Your task to perform on an android device: change keyboard looks Image 0: 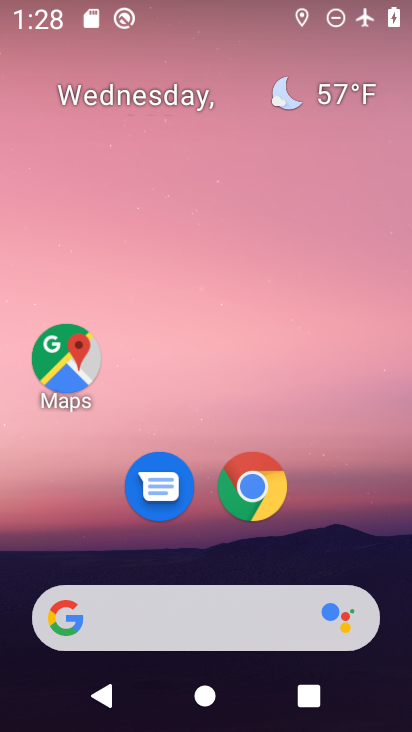
Step 0: drag from (333, 559) to (358, 132)
Your task to perform on an android device: change keyboard looks Image 1: 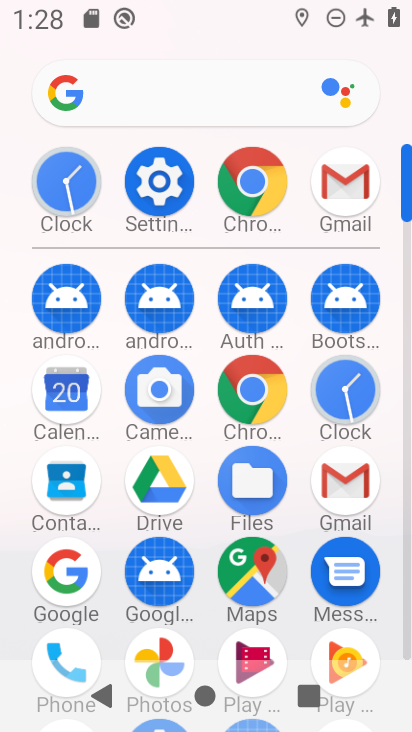
Step 1: click (160, 193)
Your task to perform on an android device: change keyboard looks Image 2: 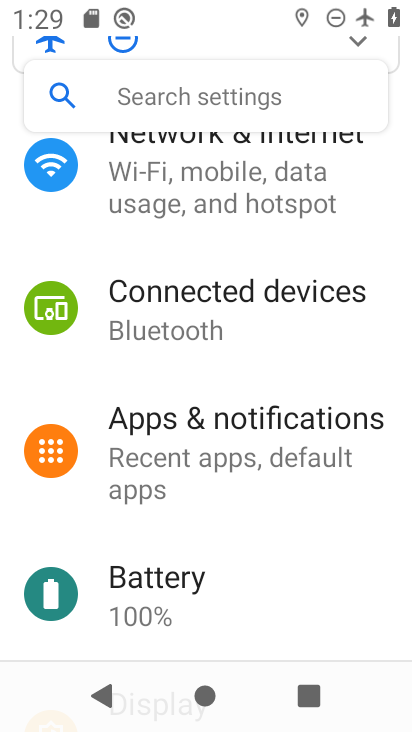
Step 2: drag from (356, 209) to (359, 360)
Your task to perform on an android device: change keyboard looks Image 3: 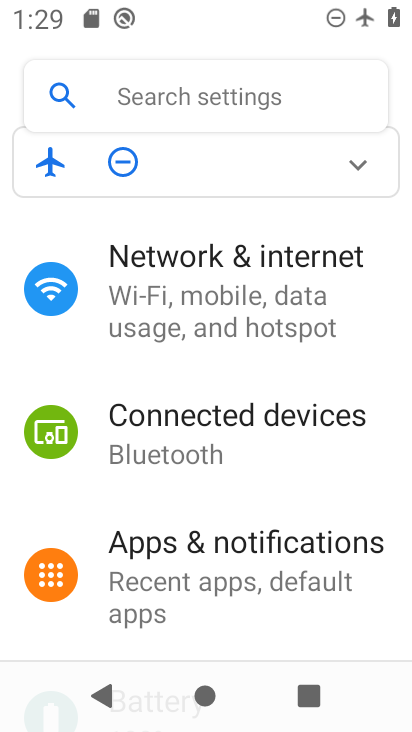
Step 3: drag from (337, 488) to (350, 354)
Your task to perform on an android device: change keyboard looks Image 4: 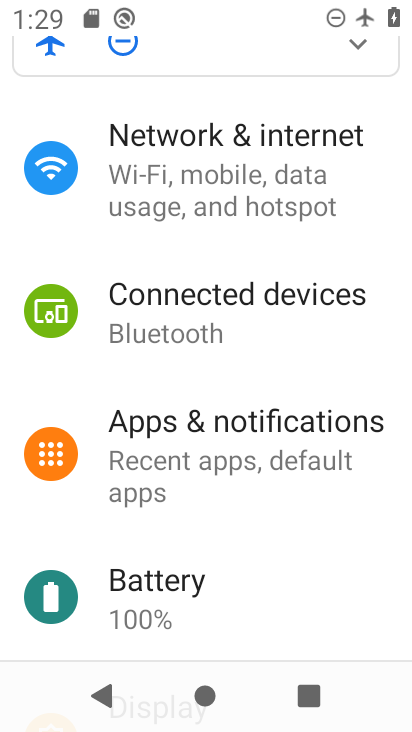
Step 4: drag from (329, 544) to (336, 399)
Your task to perform on an android device: change keyboard looks Image 5: 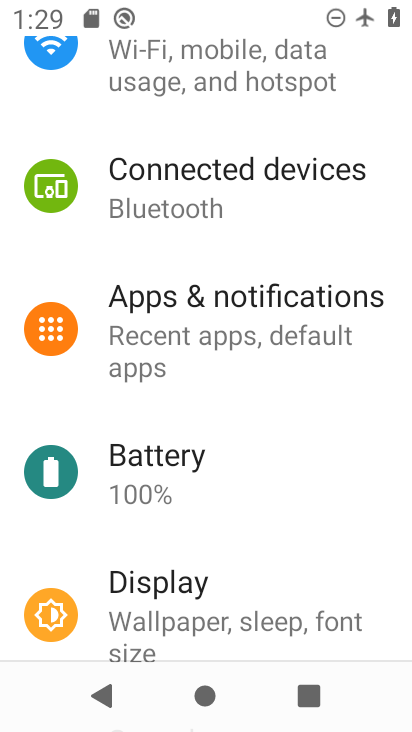
Step 5: drag from (315, 532) to (330, 364)
Your task to perform on an android device: change keyboard looks Image 6: 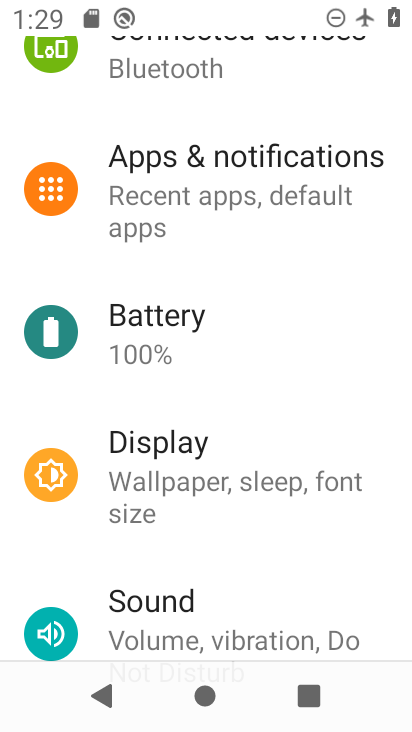
Step 6: drag from (313, 548) to (324, 409)
Your task to perform on an android device: change keyboard looks Image 7: 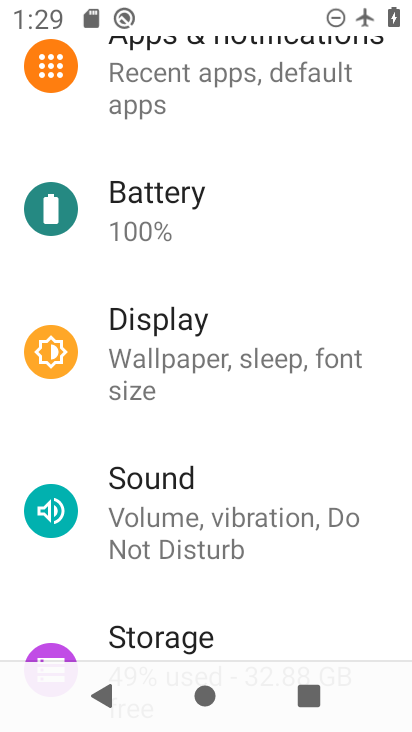
Step 7: drag from (314, 574) to (326, 406)
Your task to perform on an android device: change keyboard looks Image 8: 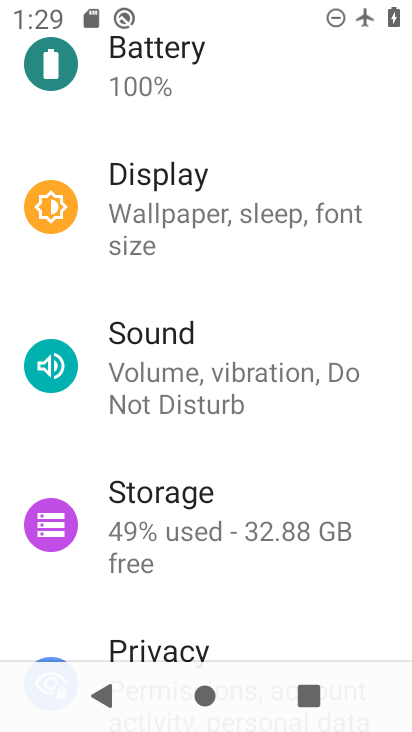
Step 8: drag from (333, 569) to (351, 457)
Your task to perform on an android device: change keyboard looks Image 9: 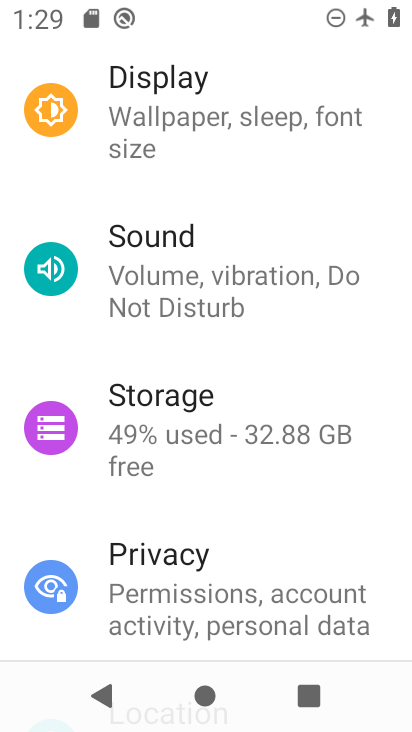
Step 9: drag from (337, 495) to (342, 393)
Your task to perform on an android device: change keyboard looks Image 10: 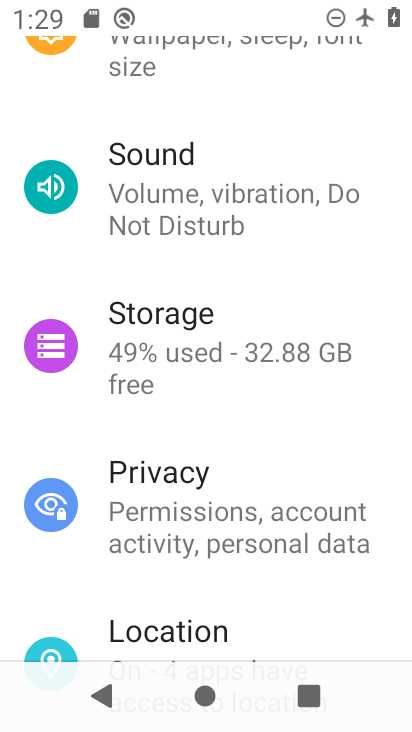
Step 10: drag from (345, 579) to (366, 436)
Your task to perform on an android device: change keyboard looks Image 11: 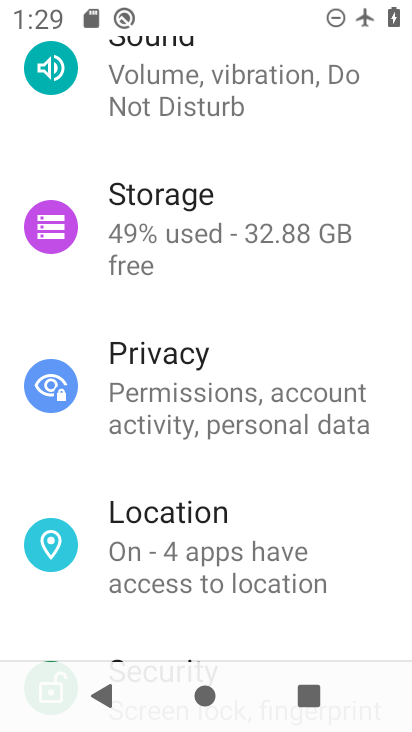
Step 11: drag from (355, 564) to (359, 444)
Your task to perform on an android device: change keyboard looks Image 12: 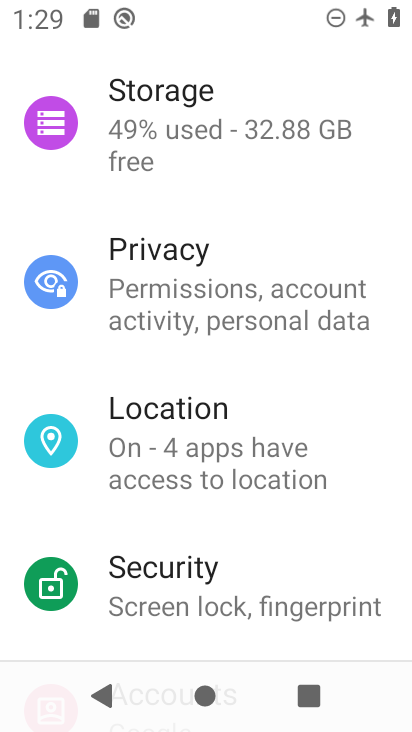
Step 12: drag from (336, 543) to (345, 412)
Your task to perform on an android device: change keyboard looks Image 13: 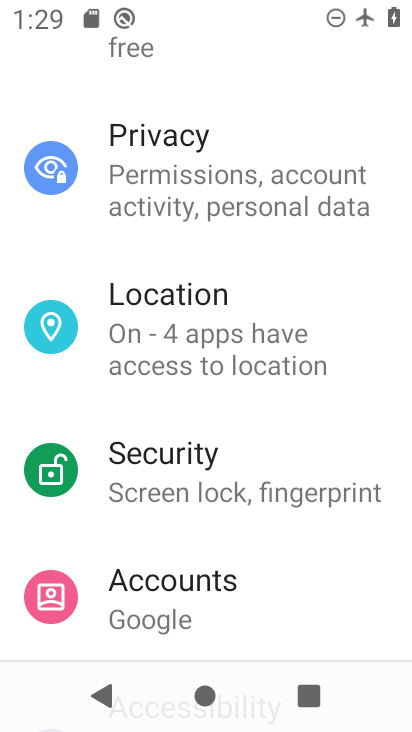
Step 13: drag from (340, 538) to (346, 448)
Your task to perform on an android device: change keyboard looks Image 14: 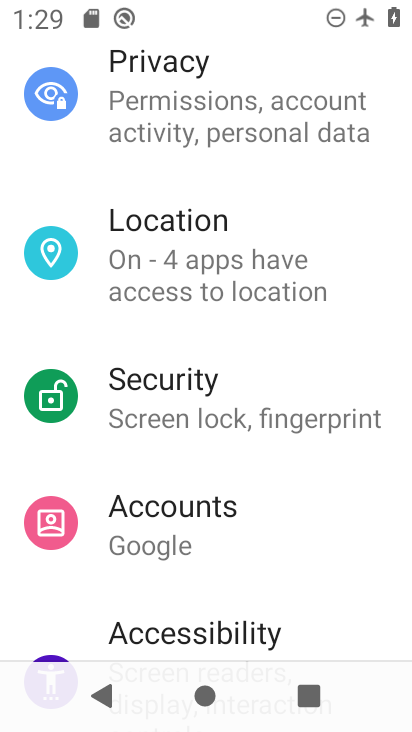
Step 14: drag from (334, 581) to (335, 474)
Your task to perform on an android device: change keyboard looks Image 15: 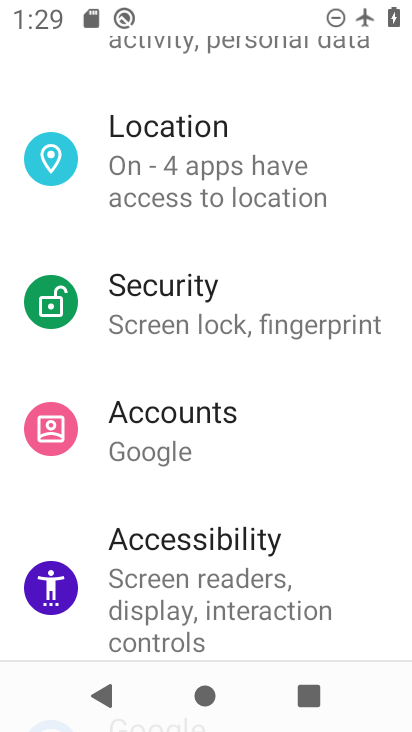
Step 15: drag from (352, 618) to (358, 497)
Your task to perform on an android device: change keyboard looks Image 16: 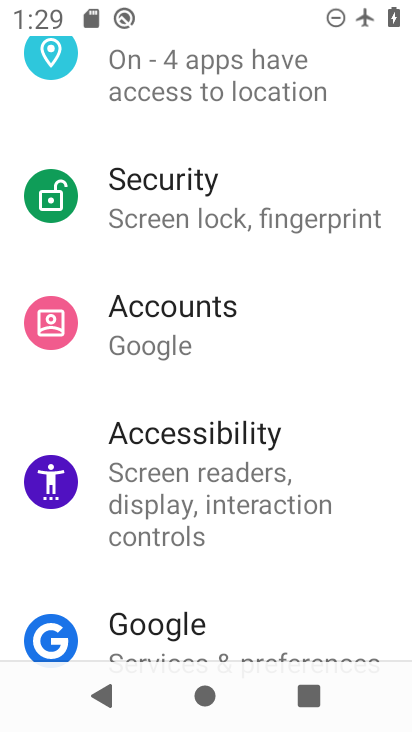
Step 16: drag from (355, 590) to (360, 446)
Your task to perform on an android device: change keyboard looks Image 17: 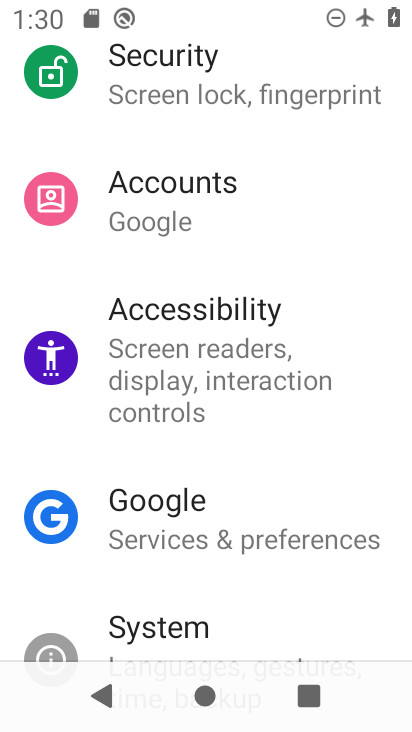
Step 17: drag from (322, 588) to (328, 472)
Your task to perform on an android device: change keyboard looks Image 18: 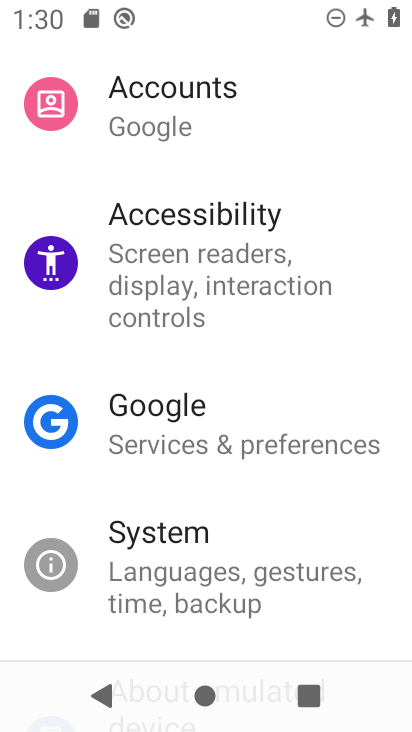
Step 18: click (276, 569)
Your task to perform on an android device: change keyboard looks Image 19: 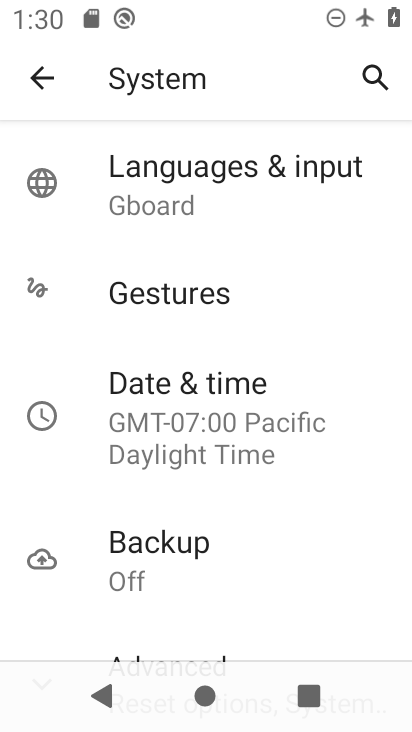
Step 19: drag from (318, 620) to (331, 529)
Your task to perform on an android device: change keyboard looks Image 20: 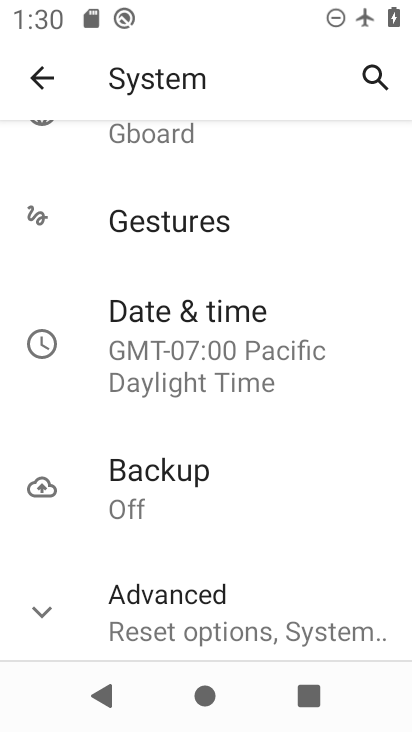
Step 20: drag from (359, 300) to (361, 483)
Your task to perform on an android device: change keyboard looks Image 21: 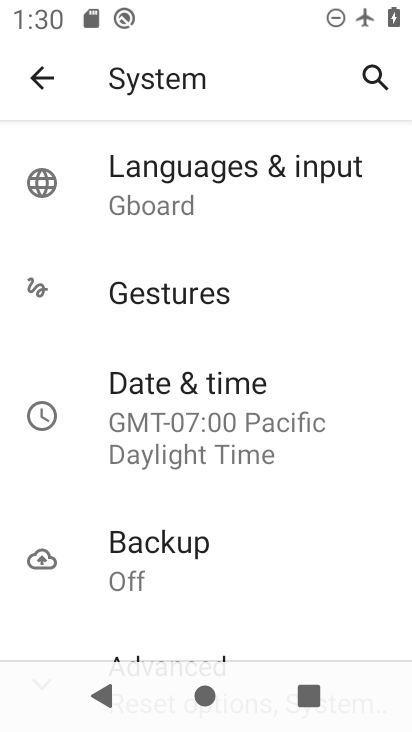
Step 21: drag from (353, 257) to (352, 466)
Your task to perform on an android device: change keyboard looks Image 22: 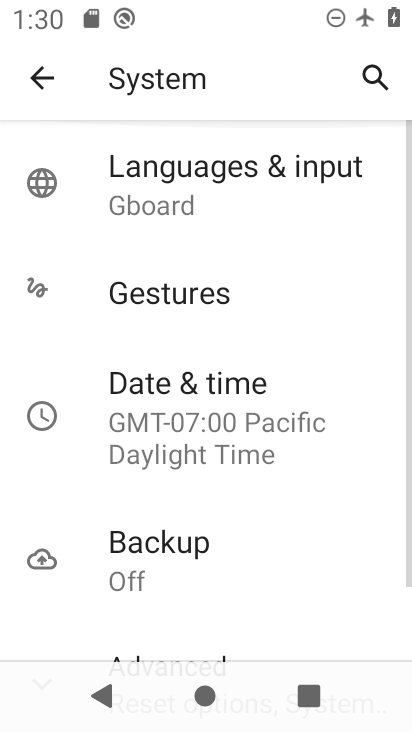
Step 22: click (254, 200)
Your task to perform on an android device: change keyboard looks Image 23: 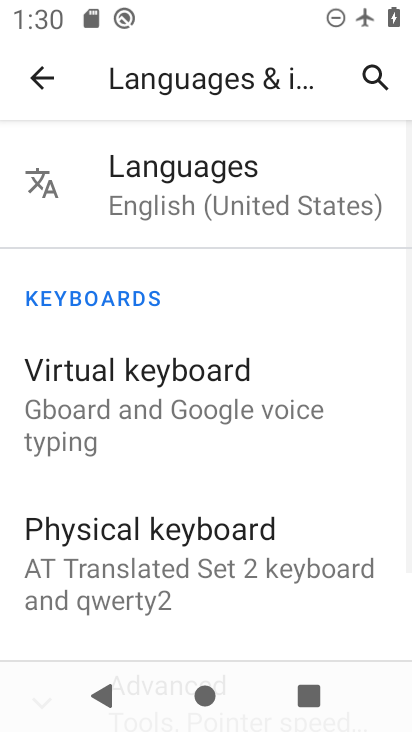
Step 23: click (238, 385)
Your task to perform on an android device: change keyboard looks Image 24: 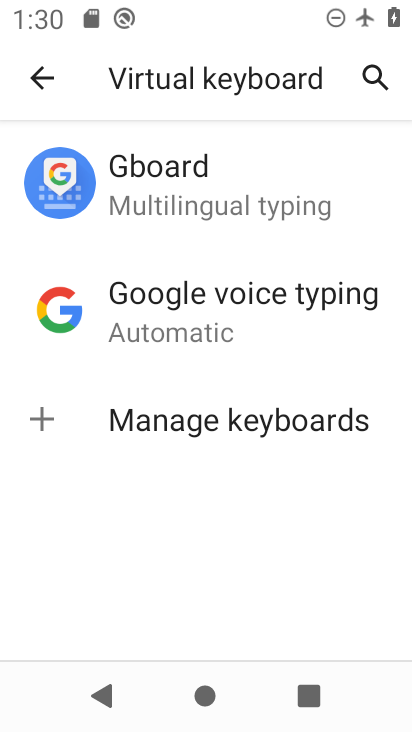
Step 24: click (258, 218)
Your task to perform on an android device: change keyboard looks Image 25: 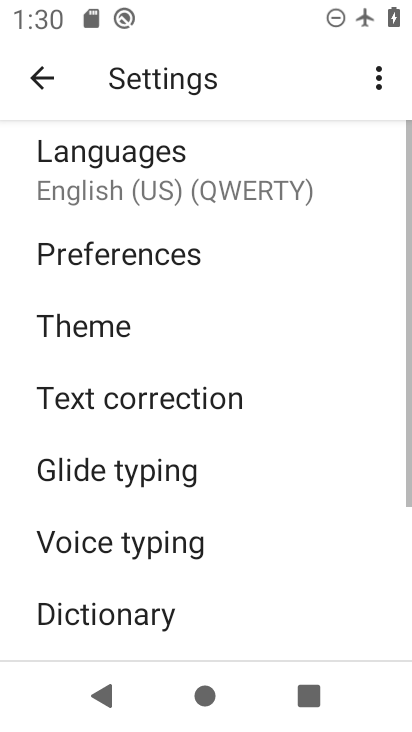
Step 25: click (216, 347)
Your task to perform on an android device: change keyboard looks Image 26: 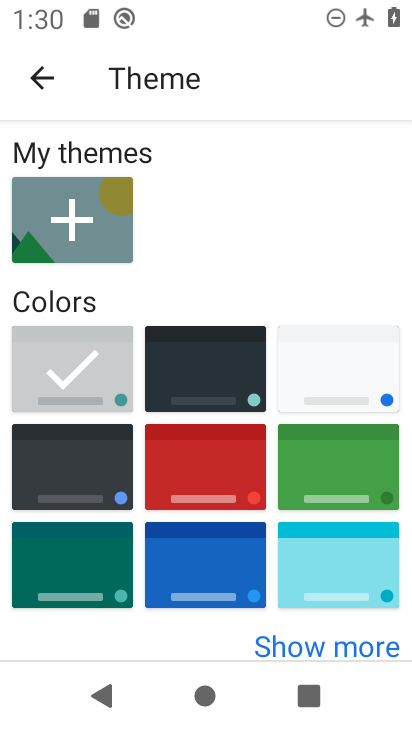
Step 26: click (317, 475)
Your task to perform on an android device: change keyboard looks Image 27: 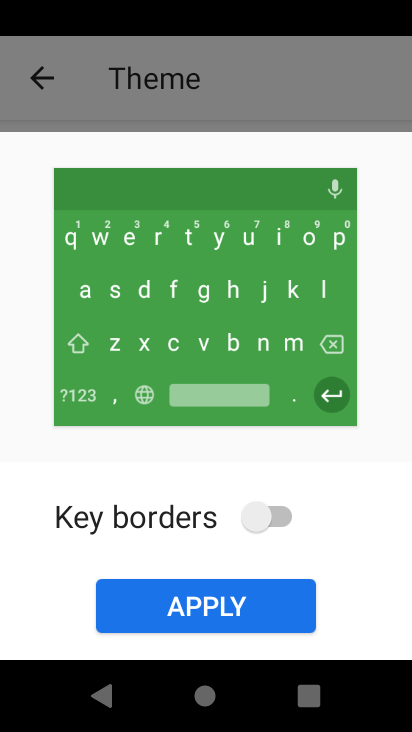
Step 27: click (249, 625)
Your task to perform on an android device: change keyboard looks Image 28: 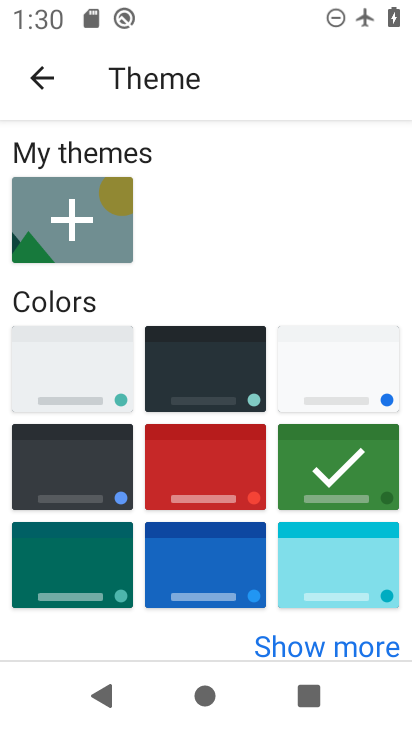
Step 28: task complete